Your task to perform on an android device: toggle priority inbox in the gmail app Image 0: 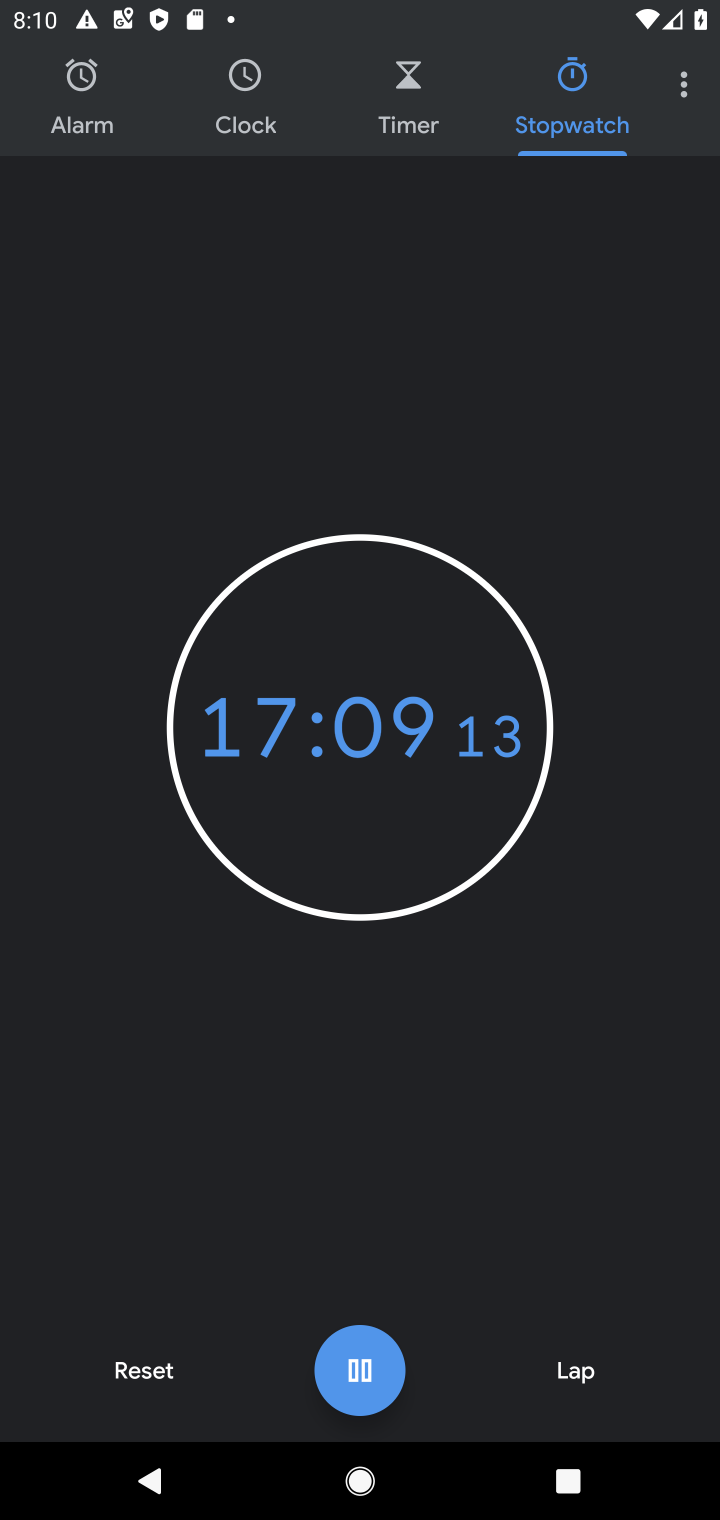
Step 0: press home button
Your task to perform on an android device: toggle priority inbox in the gmail app Image 1: 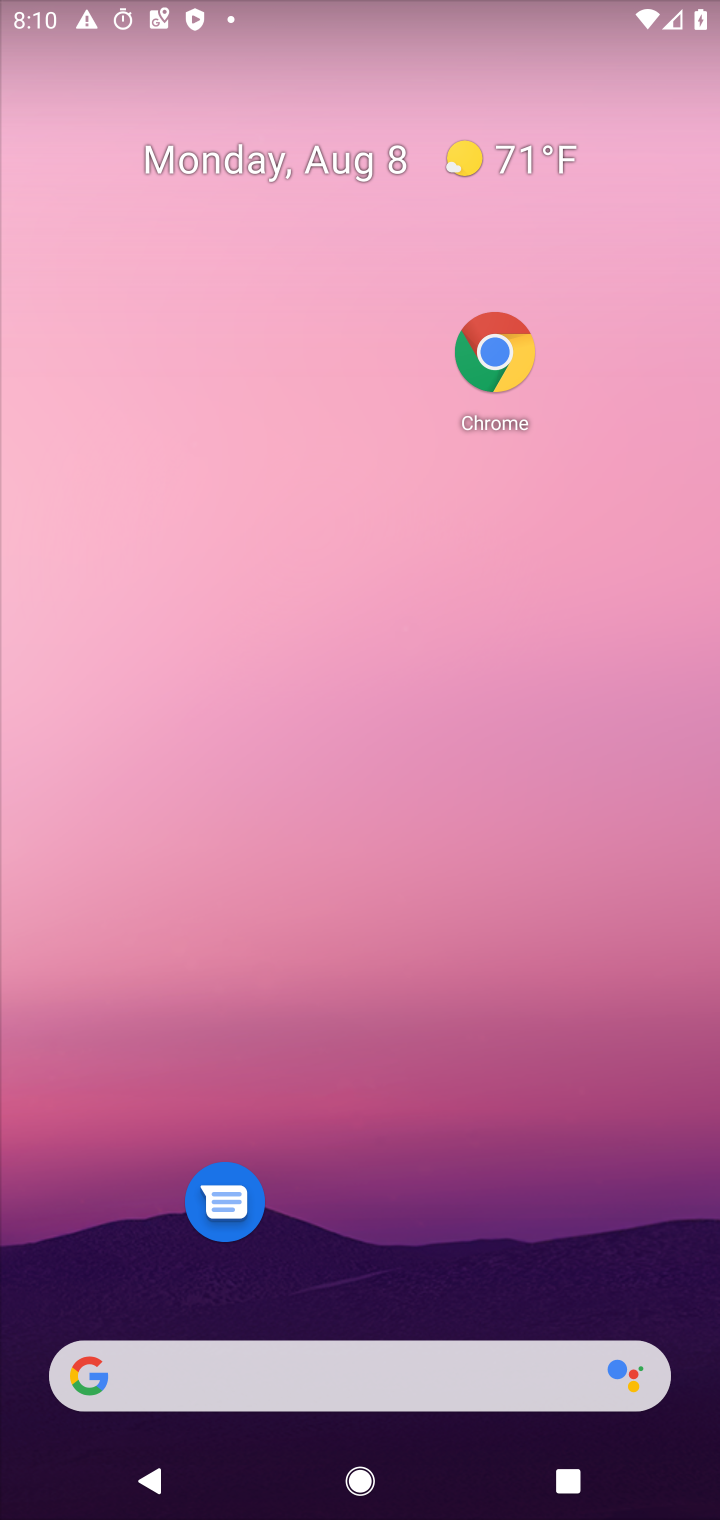
Step 1: drag from (352, 1396) to (449, 361)
Your task to perform on an android device: toggle priority inbox in the gmail app Image 2: 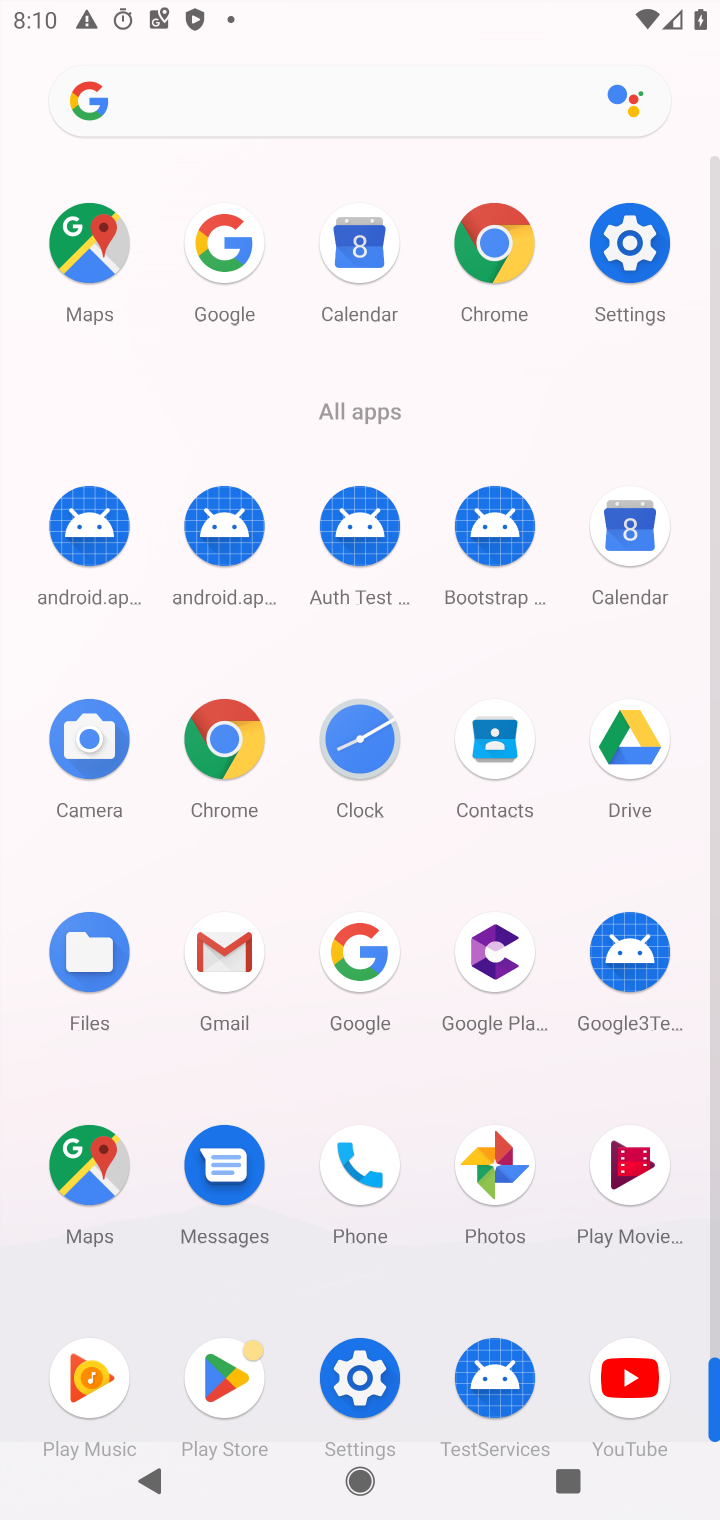
Step 2: click (237, 988)
Your task to perform on an android device: toggle priority inbox in the gmail app Image 3: 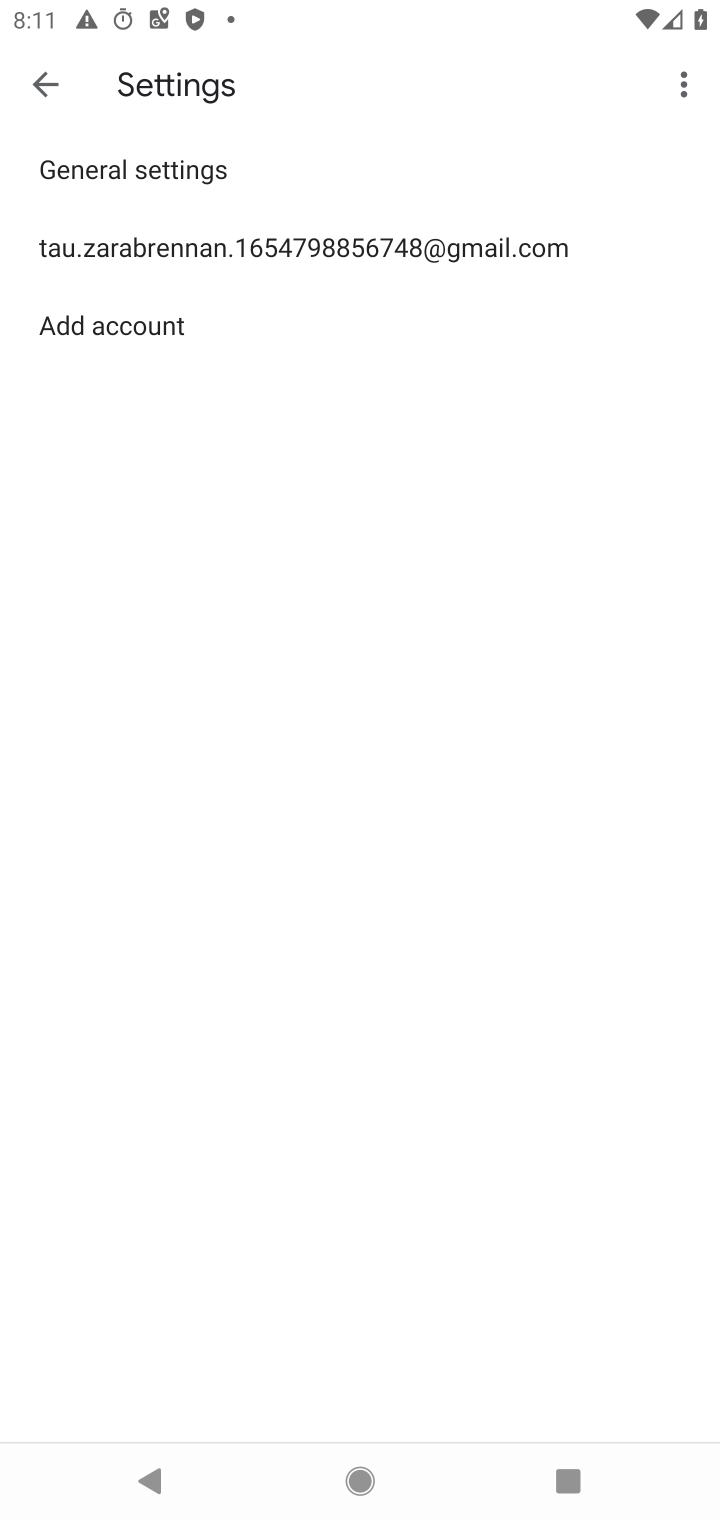
Step 3: click (251, 251)
Your task to perform on an android device: toggle priority inbox in the gmail app Image 4: 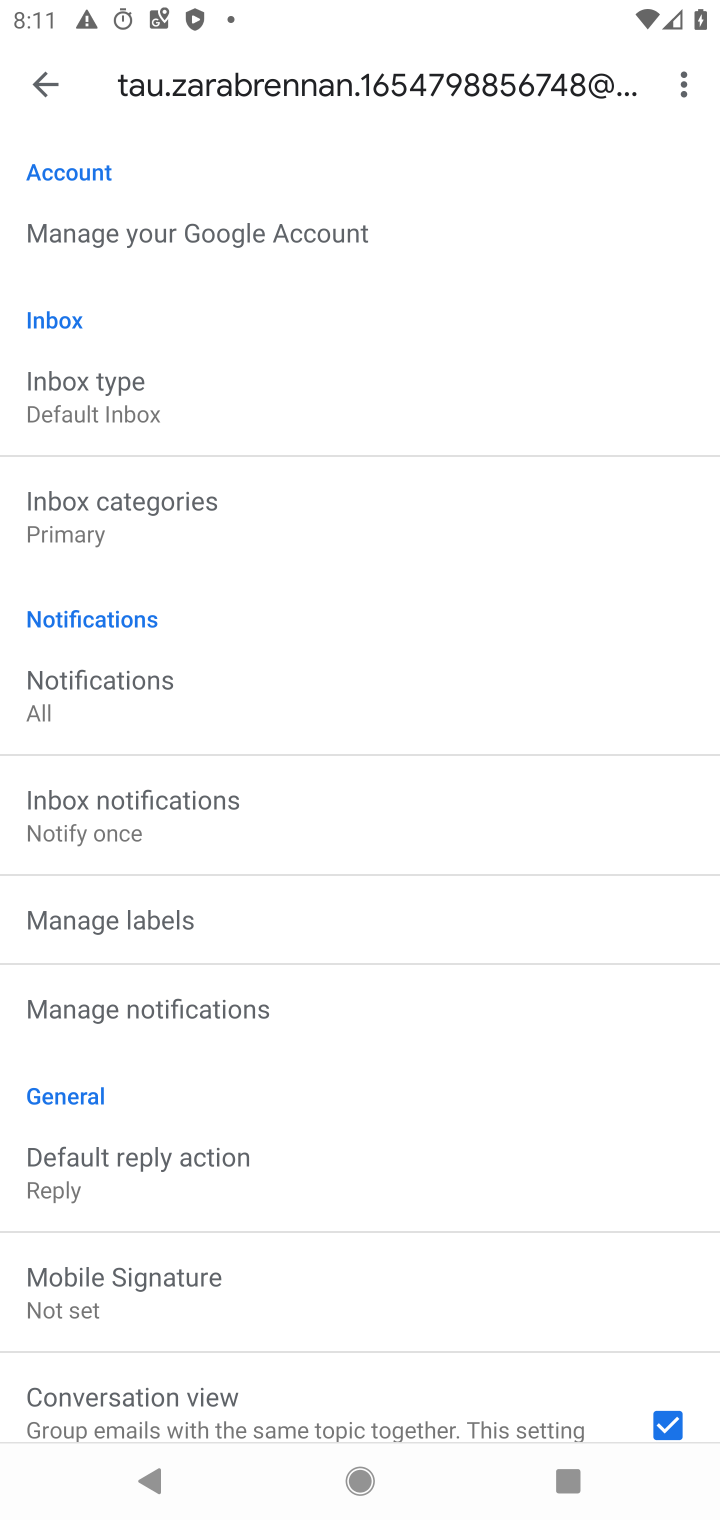
Step 4: click (116, 405)
Your task to perform on an android device: toggle priority inbox in the gmail app Image 5: 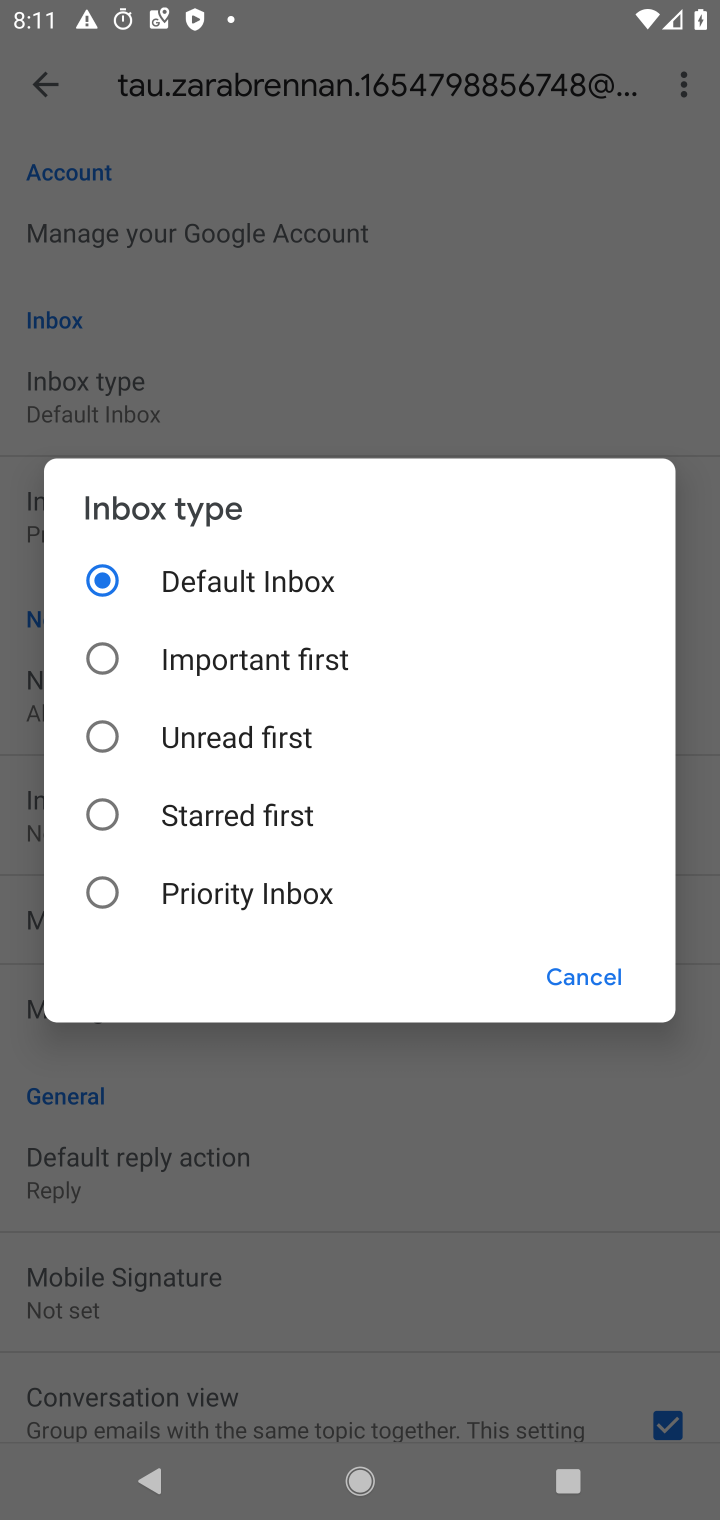
Step 5: click (99, 891)
Your task to perform on an android device: toggle priority inbox in the gmail app Image 6: 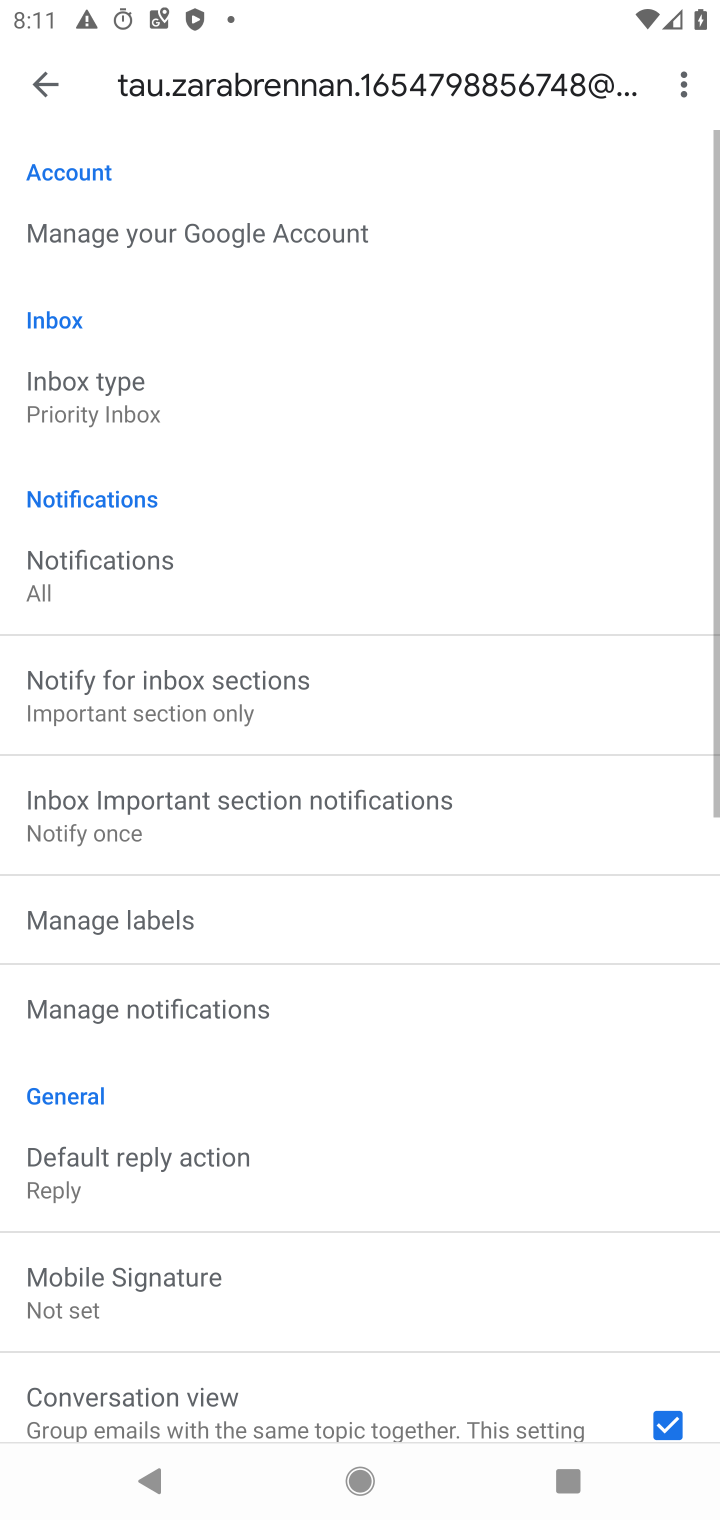
Step 6: task complete